Your task to perform on an android device: Open display settings Image 0: 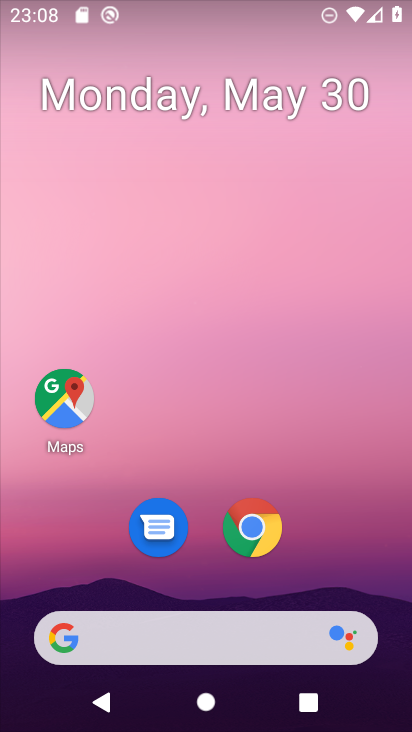
Step 0: drag from (321, 551) to (316, 329)
Your task to perform on an android device: Open display settings Image 1: 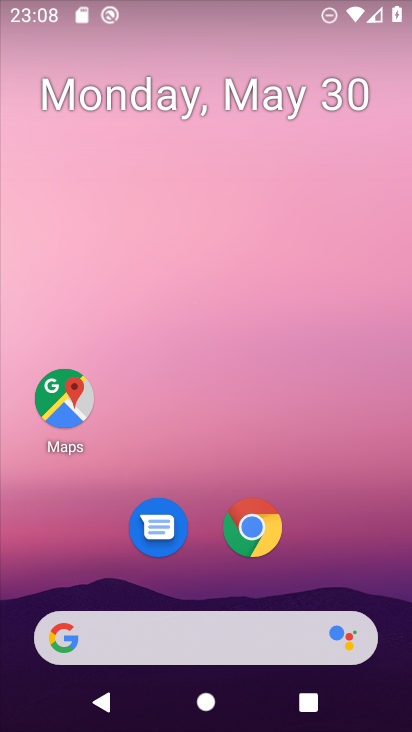
Step 1: drag from (313, 551) to (322, 223)
Your task to perform on an android device: Open display settings Image 2: 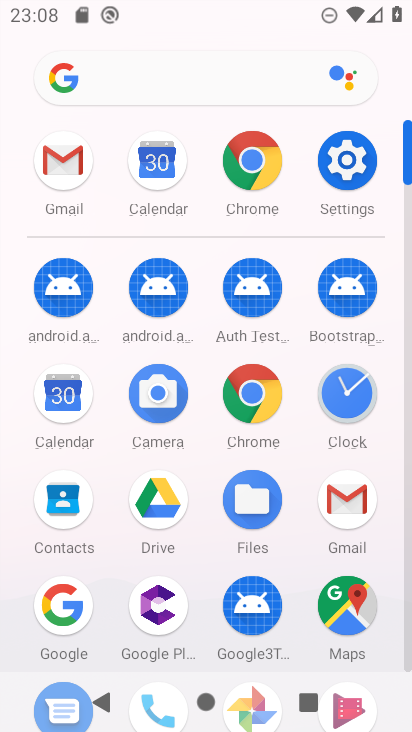
Step 2: click (356, 150)
Your task to perform on an android device: Open display settings Image 3: 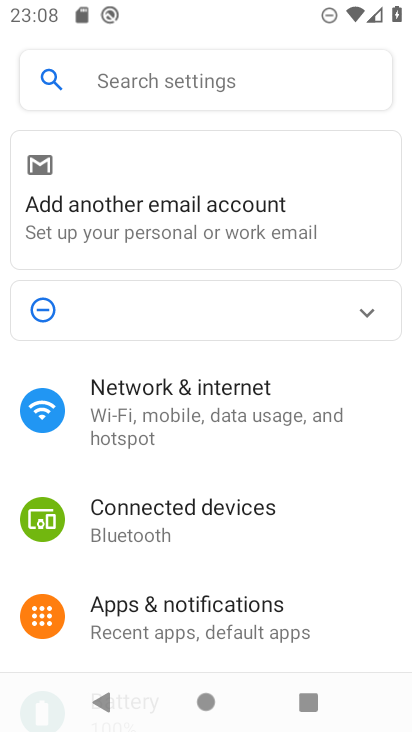
Step 3: drag from (182, 559) to (228, 211)
Your task to perform on an android device: Open display settings Image 4: 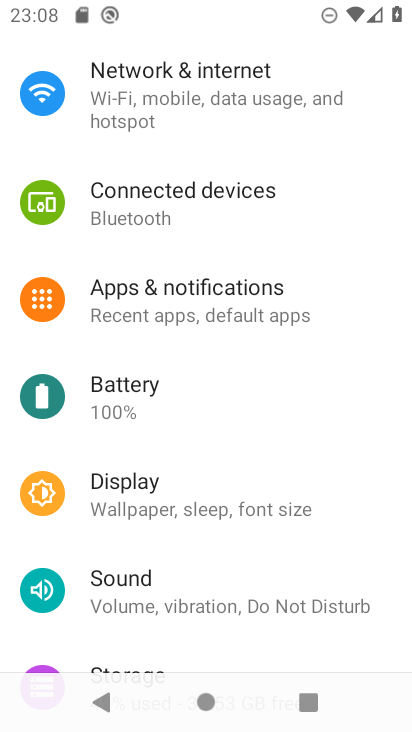
Step 4: drag from (171, 533) to (214, 230)
Your task to perform on an android device: Open display settings Image 5: 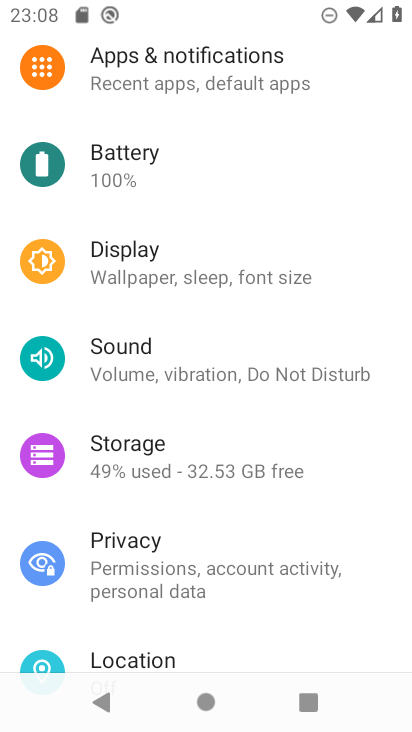
Step 5: click (106, 263)
Your task to perform on an android device: Open display settings Image 6: 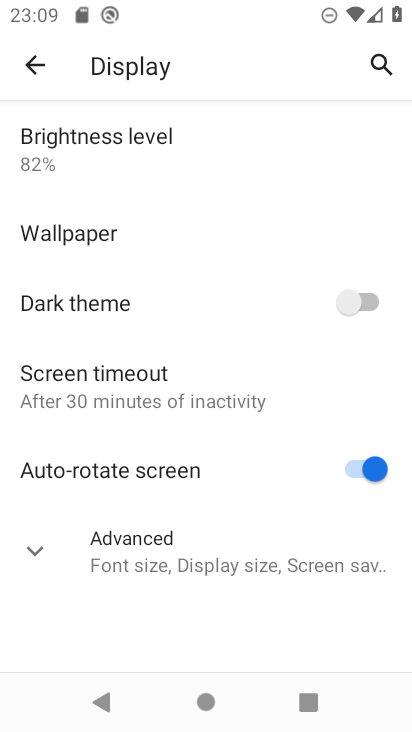
Step 6: task complete